Your task to perform on an android device: add a label to a message in the gmail app Image 0: 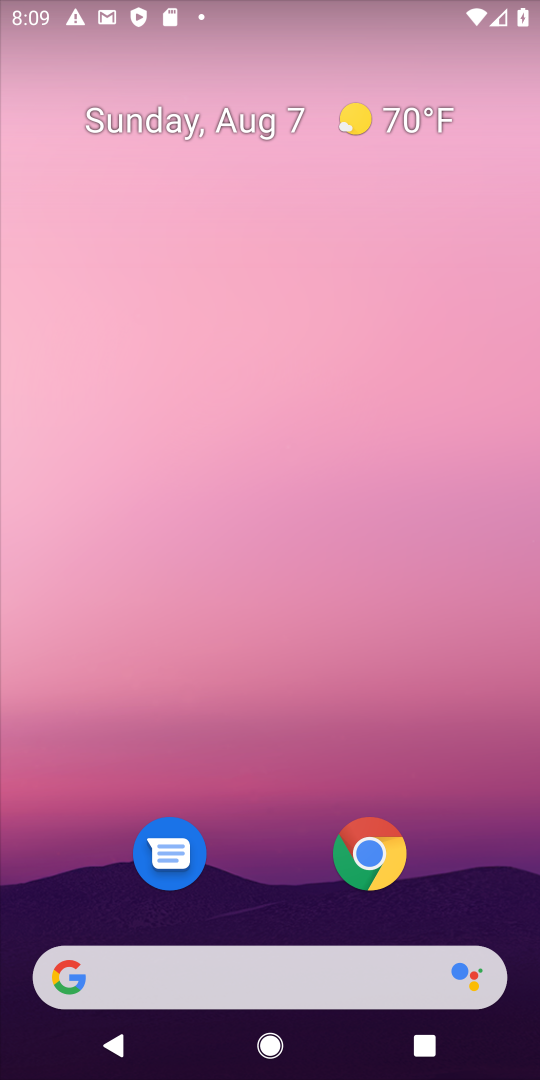
Step 0: click (235, 180)
Your task to perform on an android device: add a label to a message in the gmail app Image 1: 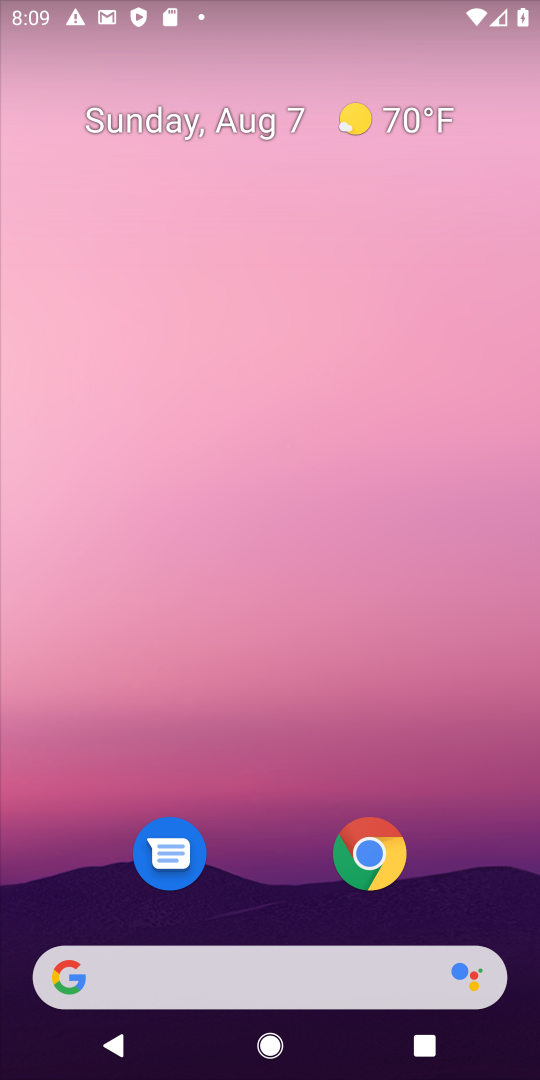
Step 1: drag from (262, 1060) to (317, 111)
Your task to perform on an android device: add a label to a message in the gmail app Image 2: 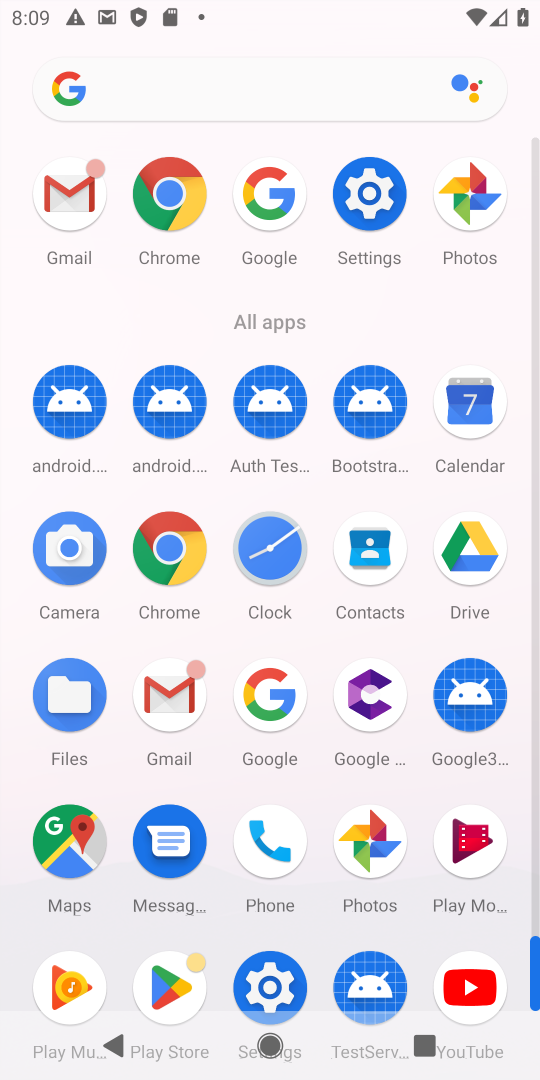
Step 2: click (166, 722)
Your task to perform on an android device: add a label to a message in the gmail app Image 3: 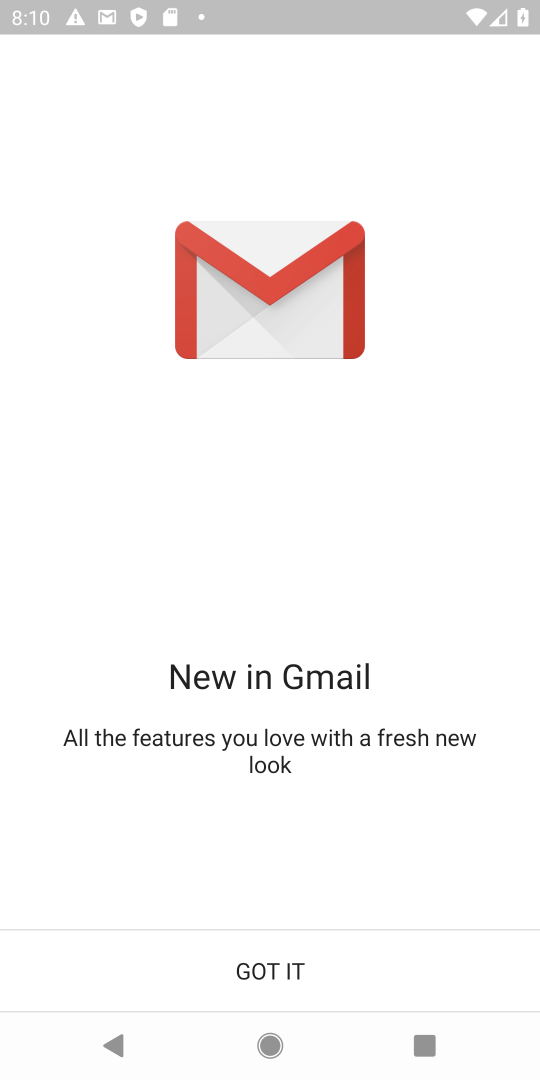
Step 3: click (237, 959)
Your task to perform on an android device: add a label to a message in the gmail app Image 4: 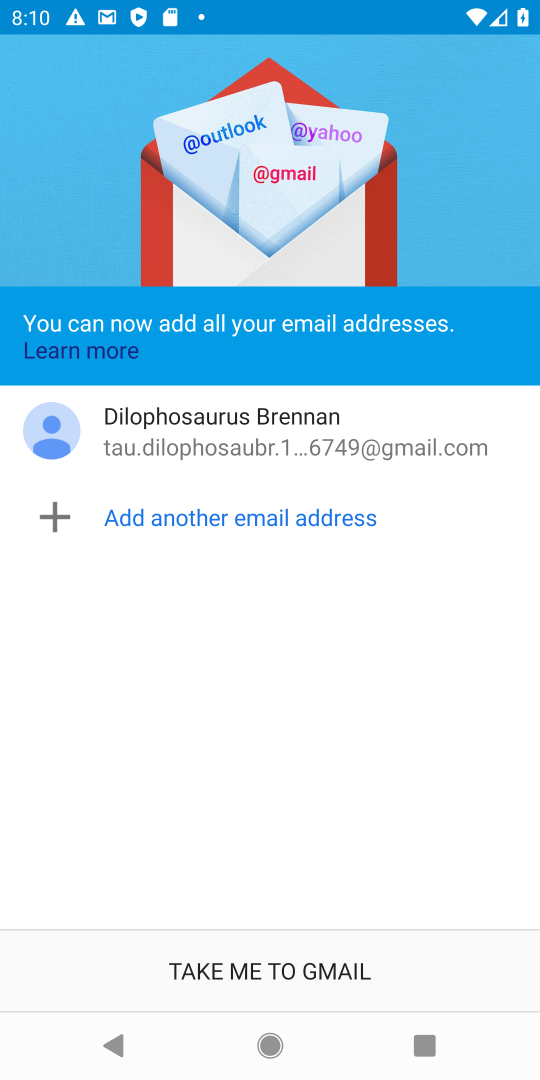
Step 4: click (309, 980)
Your task to perform on an android device: add a label to a message in the gmail app Image 5: 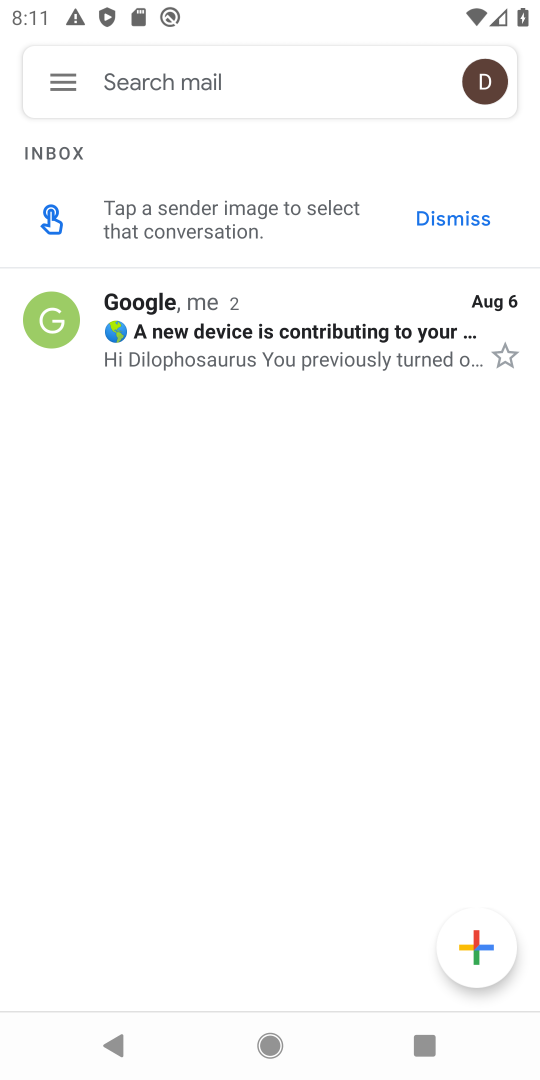
Step 5: click (60, 86)
Your task to perform on an android device: add a label to a message in the gmail app Image 6: 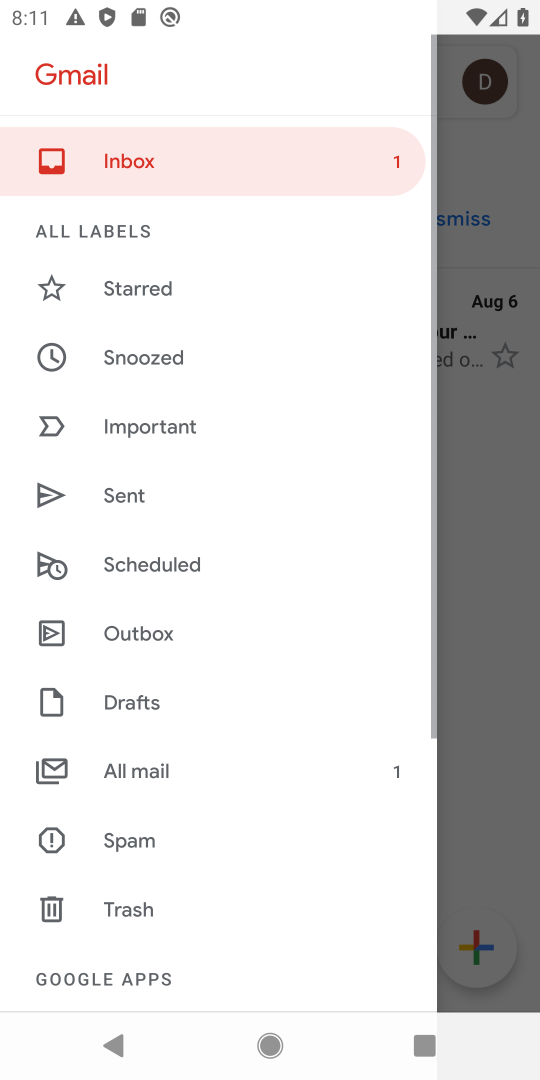
Step 6: click (482, 396)
Your task to perform on an android device: add a label to a message in the gmail app Image 7: 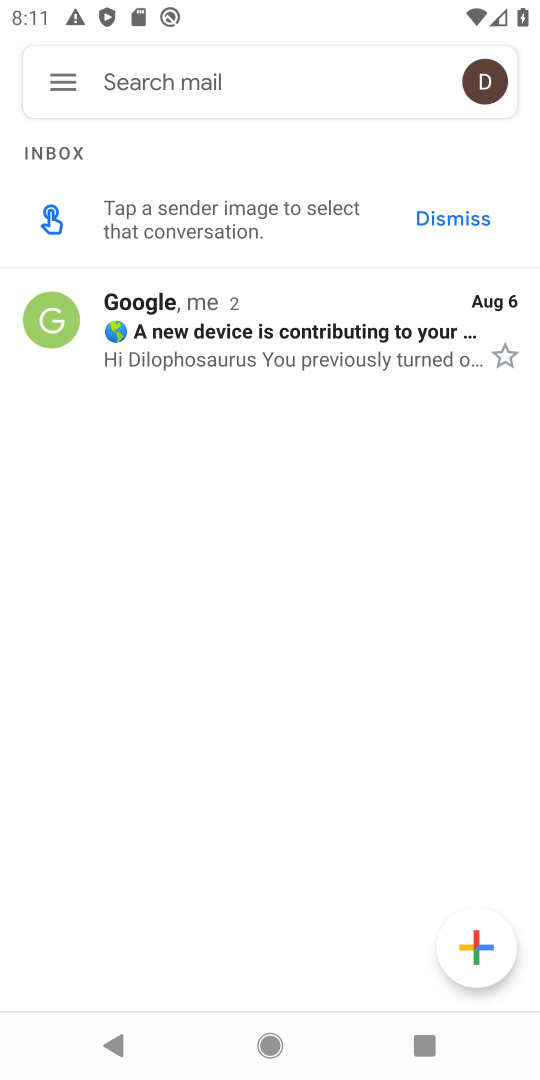
Step 7: click (315, 351)
Your task to perform on an android device: add a label to a message in the gmail app Image 8: 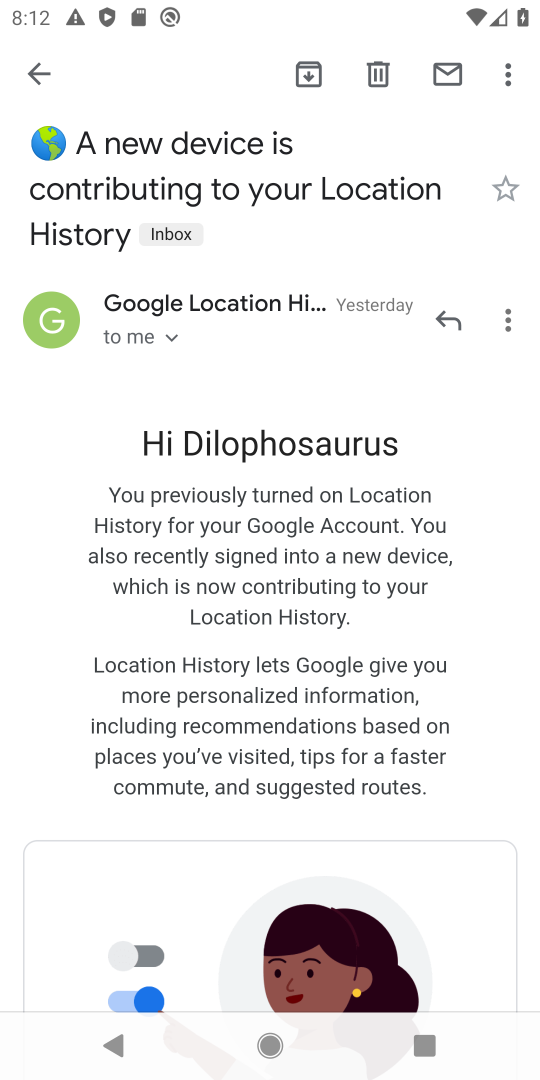
Step 8: click (512, 69)
Your task to perform on an android device: add a label to a message in the gmail app Image 9: 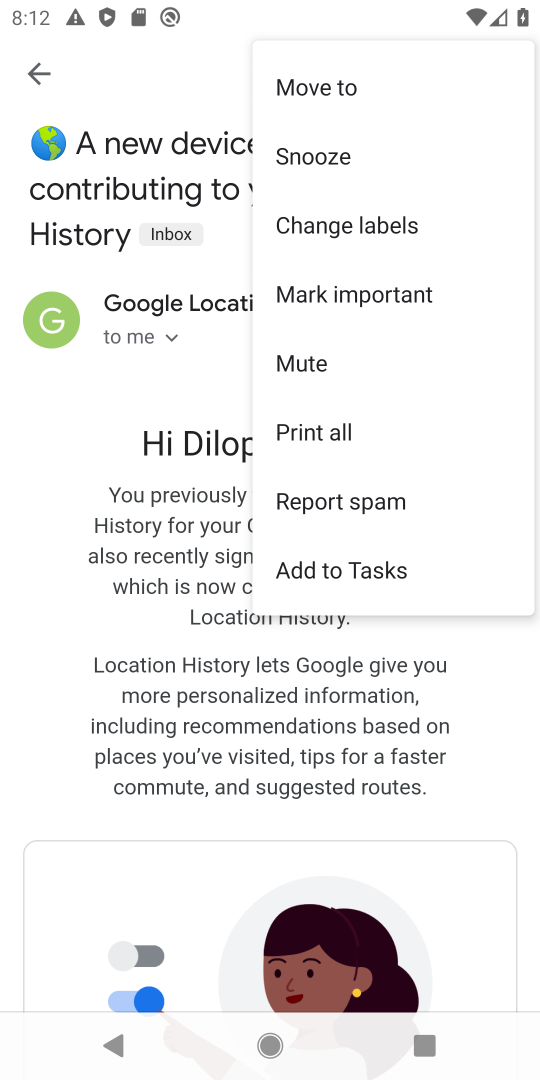
Step 9: click (340, 217)
Your task to perform on an android device: add a label to a message in the gmail app Image 10: 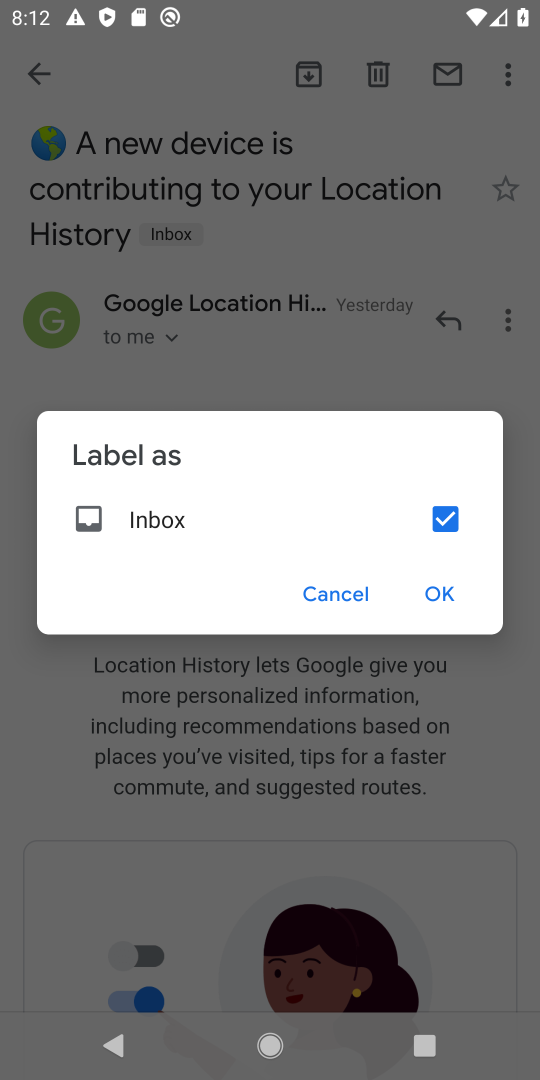
Step 10: click (445, 587)
Your task to perform on an android device: add a label to a message in the gmail app Image 11: 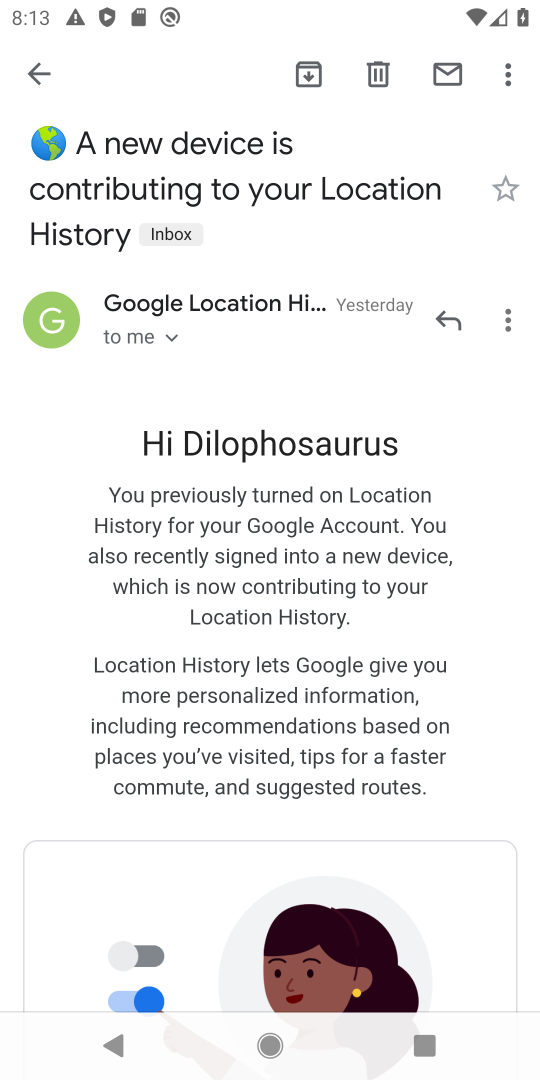
Step 11: task complete